Your task to perform on an android device: What's the news in the Bahamas? Image 0: 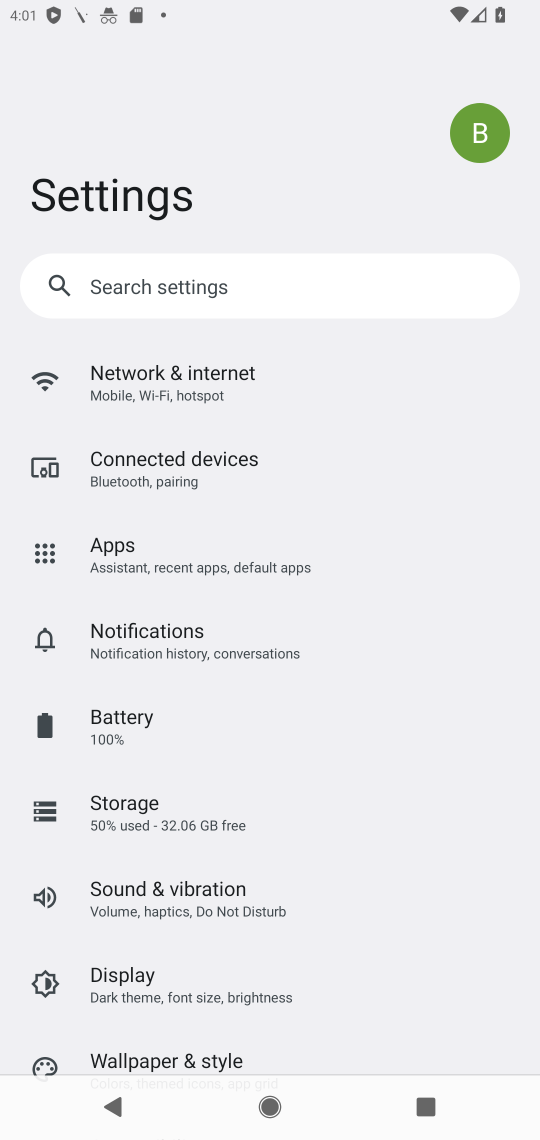
Step 0: press home button
Your task to perform on an android device: What's the news in the Bahamas? Image 1: 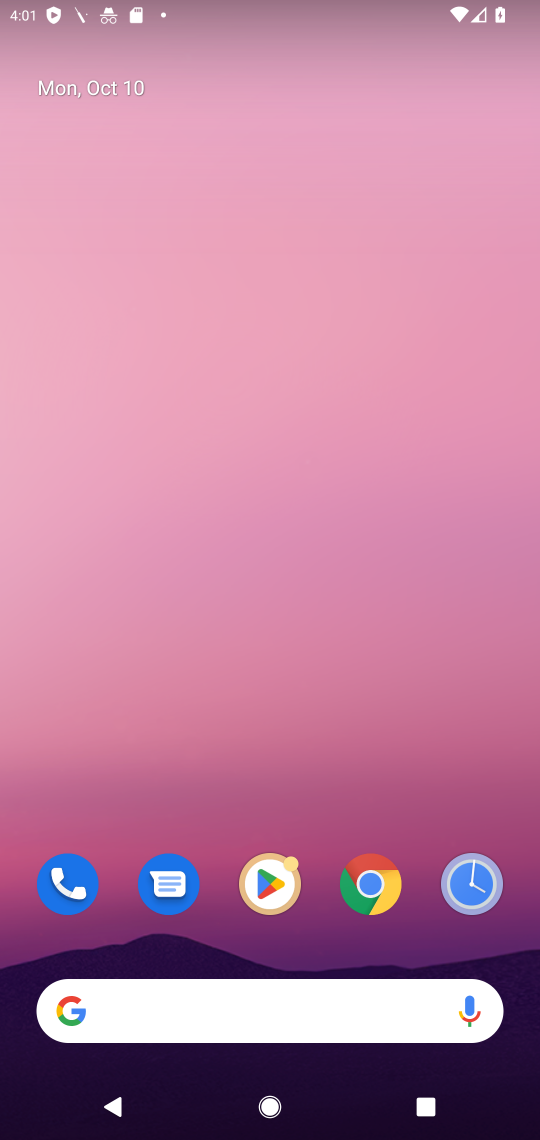
Step 1: click (320, 994)
Your task to perform on an android device: What's the news in the Bahamas? Image 2: 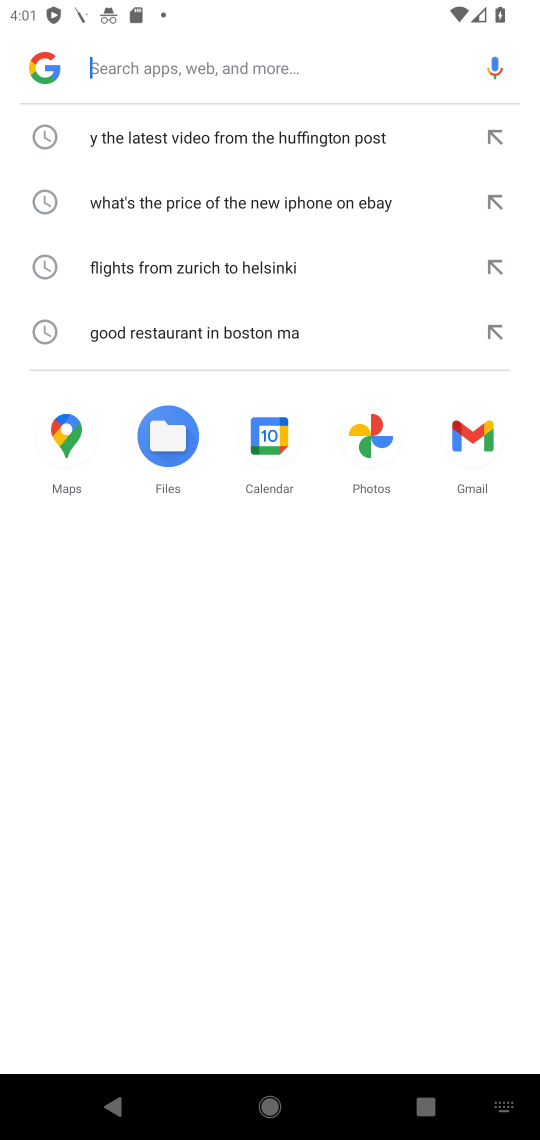
Step 2: type "What's the news in the Bahamas?"
Your task to perform on an android device: What's the news in the Bahamas? Image 3: 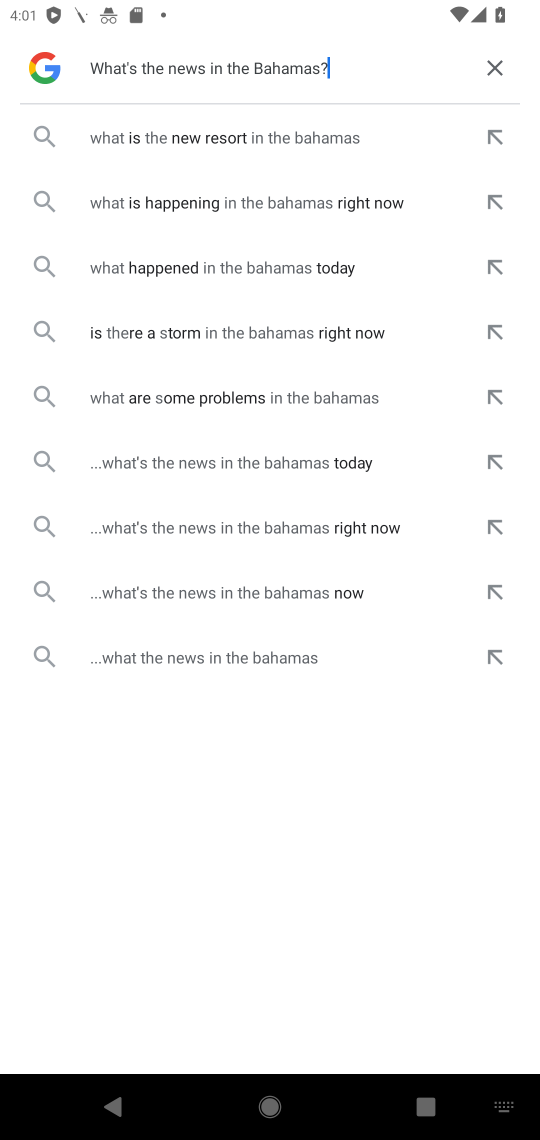
Step 3: click (225, 662)
Your task to perform on an android device: What's the news in the Bahamas? Image 4: 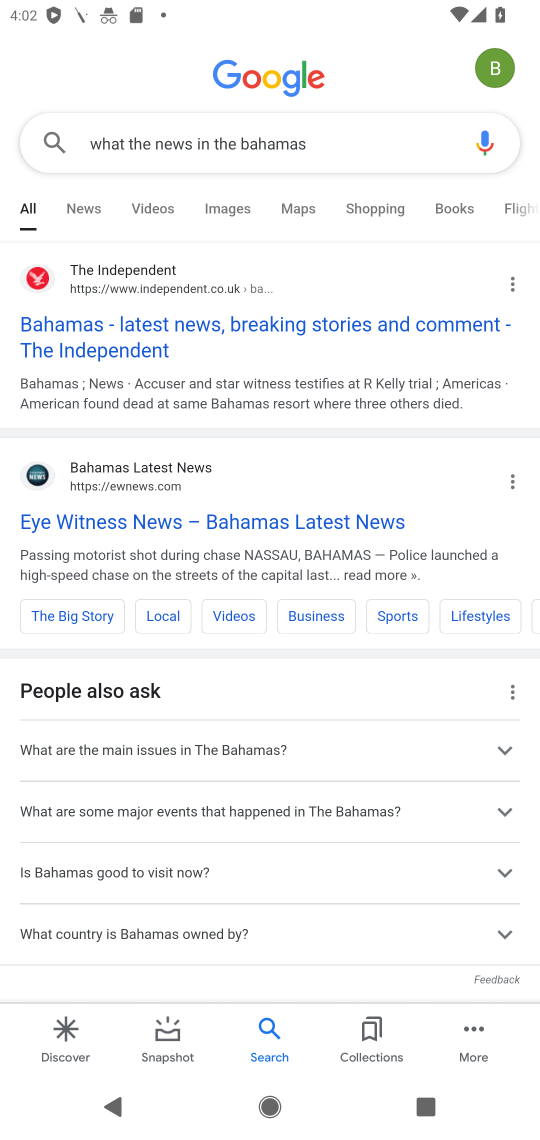
Step 4: click (130, 323)
Your task to perform on an android device: What's the news in the Bahamas? Image 5: 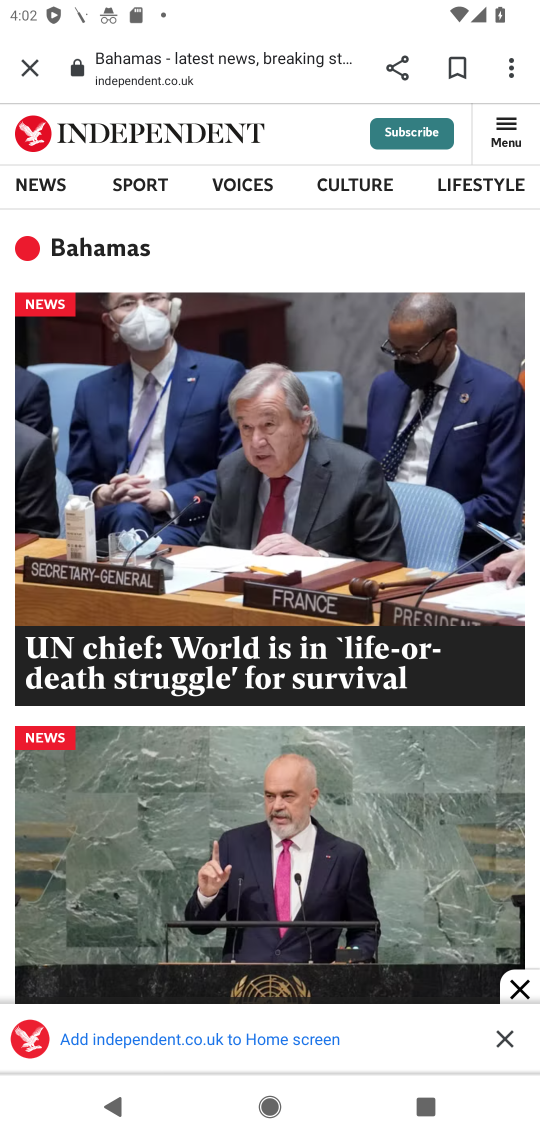
Step 5: task complete